Your task to perform on an android device: turn notification dots off Image 0: 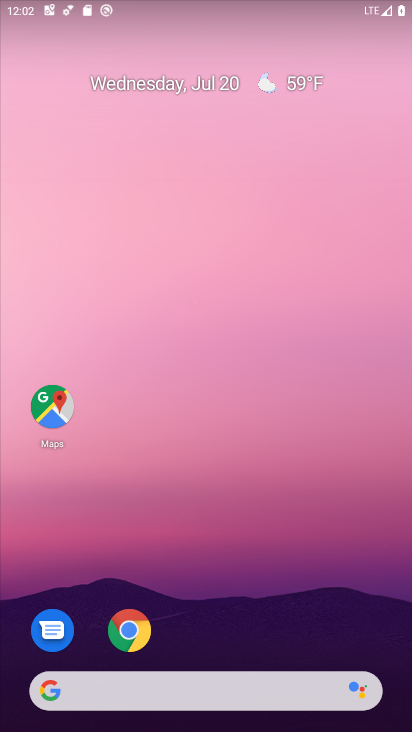
Step 0: drag from (382, 623) to (357, 227)
Your task to perform on an android device: turn notification dots off Image 1: 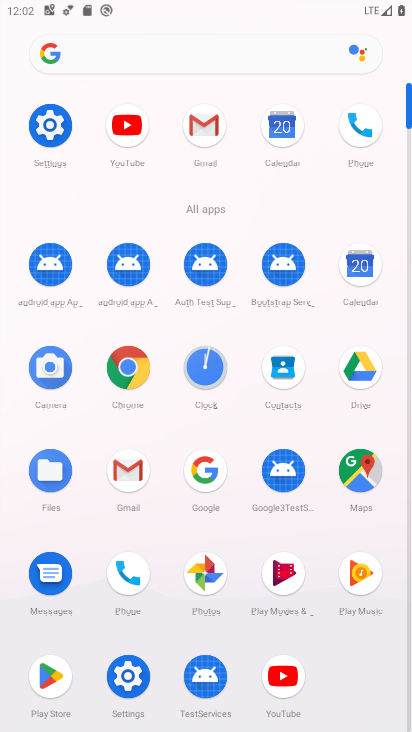
Step 1: click (128, 675)
Your task to perform on an android device: turn notification dots off Image 2: 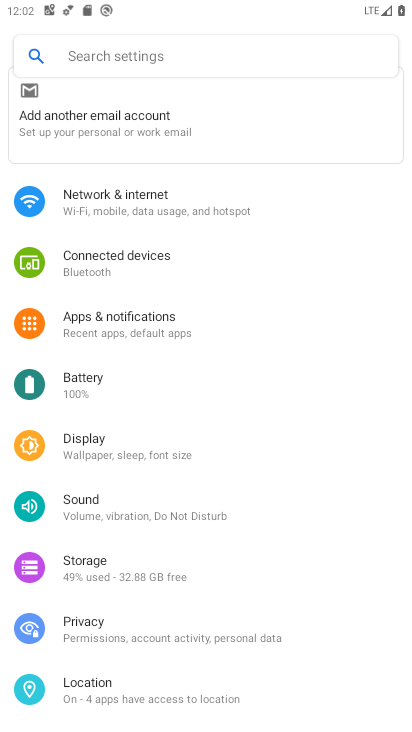
Step 2: click (114, 312)
Your task to perform on an android device: turn notification dots off Image 3: 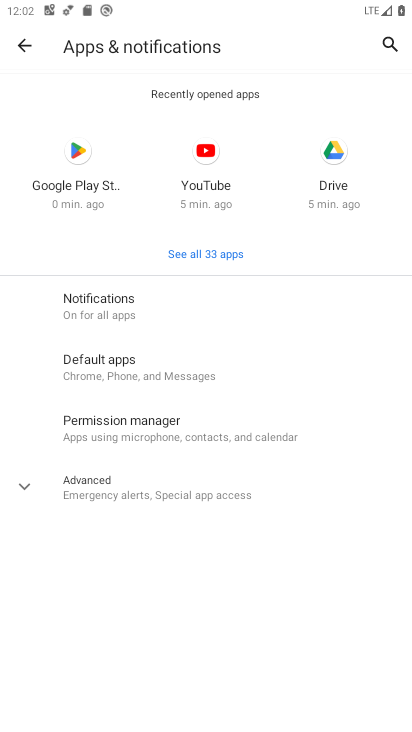
Step 3: click (97, 305)
Your task to perform on an android device: turn notification dots off Image 4: 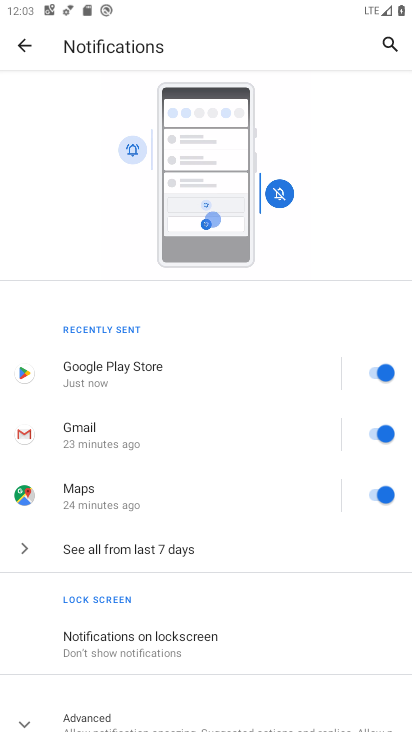
Step 4: drag from (170, 678) to (168, 278)
Your task to perform on an android device: turn notification dots off Image 5: 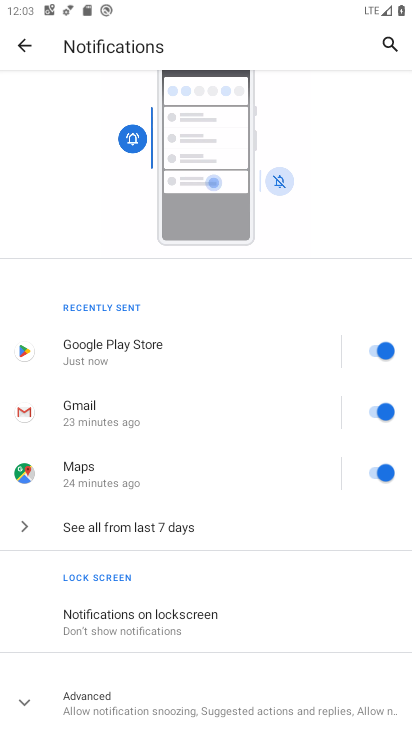
Step 5: click (25, 707)
Your task to perform on an android device: turn notification dots off Image 6: 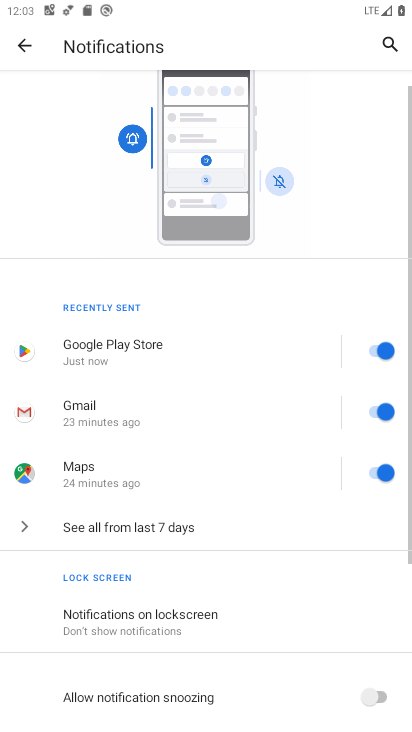
Step 6: task complete